Your task to perform on an android device: View the shopping cart on newegg. Add "usb-c to usb-b" to the cart on newegg, then select checkout. Image 0: 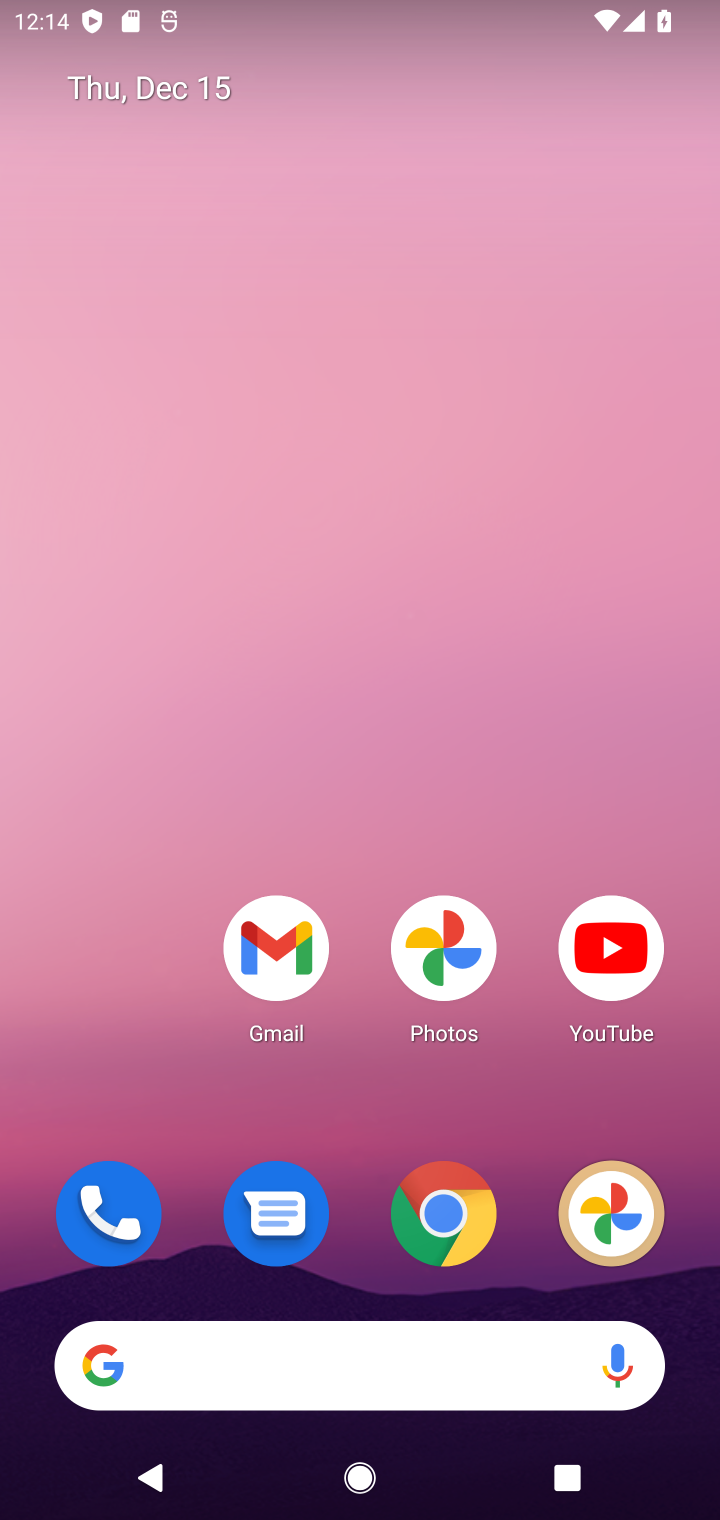
Step 0: click (428, 1242)
Your task to perform on an android device: View the shopping cart on newegg. Add "usb-c to usb-b" to the cart on newegg, then select checkout. Image 1: 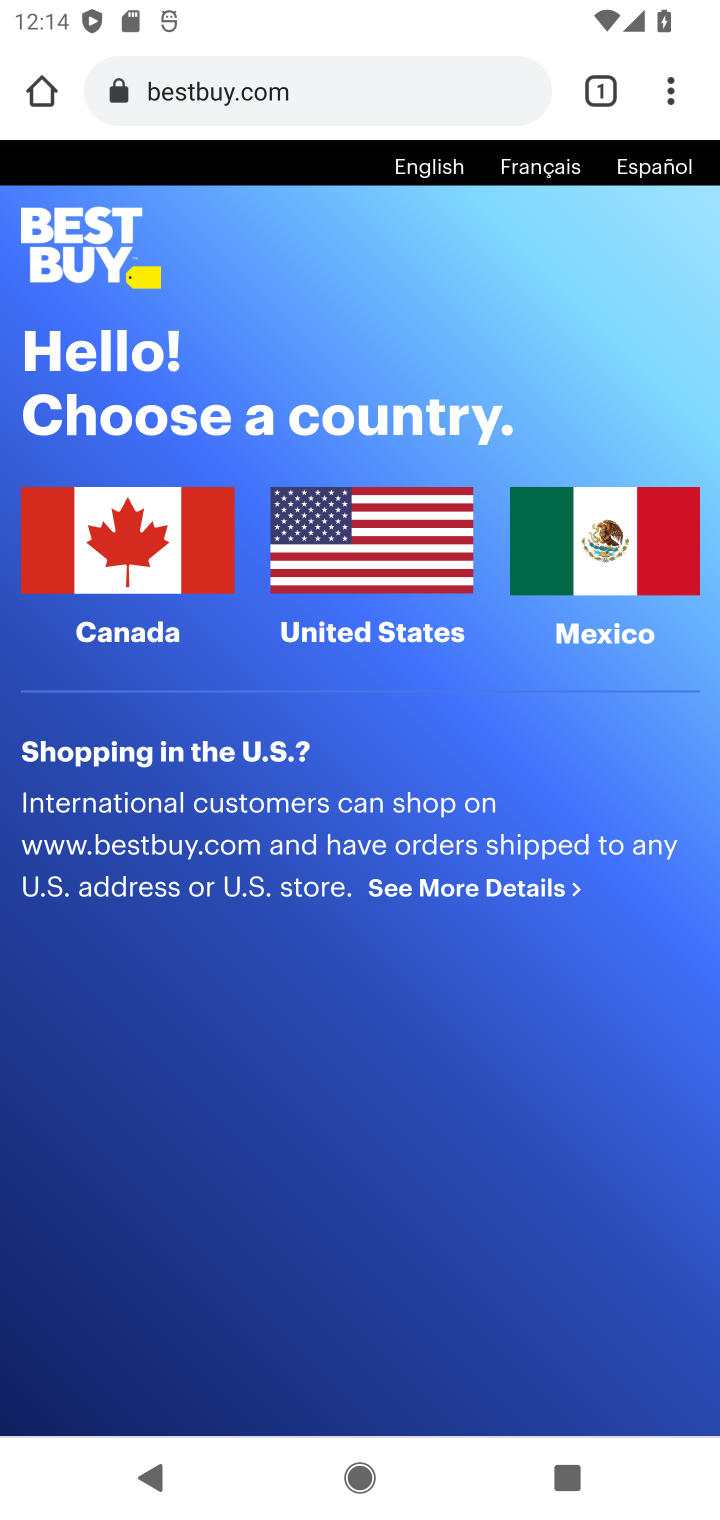
Step 1: click (294, 69)
Your task to perform on an android device: View the shopping cart on newegg. Add "usb-c to usb-b" to the cart on newegg, then select checkout. Image 2: 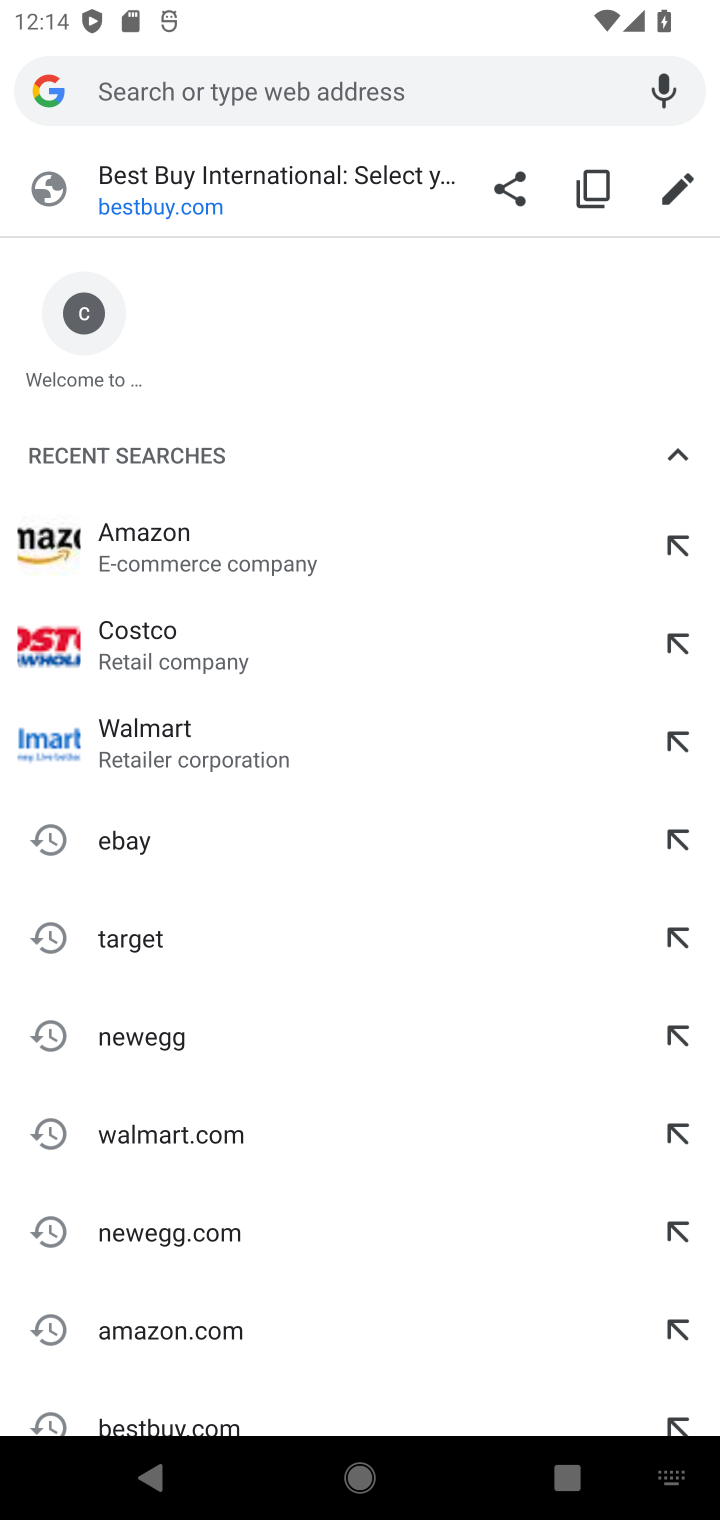
Step 2: click (201, 1225)
Your task to perform on an android device: View the shopping cart on newegg. Add "usb-c to usb-b" to the cart on newegg, then select checkout. Image 3: 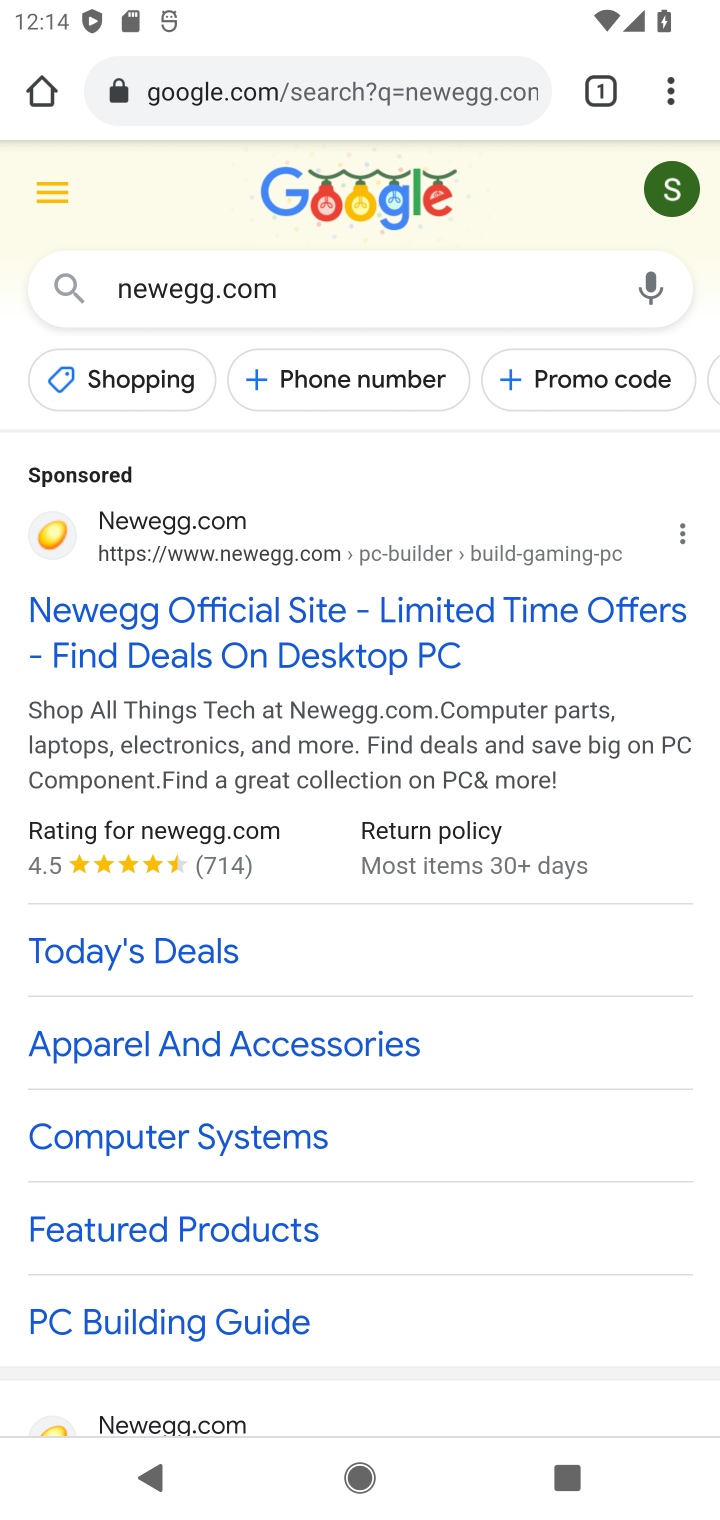
Step 3: click (207, 627)
Your task to perform on an android device: View the shopping cart on newegg. Add "usb-c to usb-b" to the cart on newegg, then select checkout. Image 4: 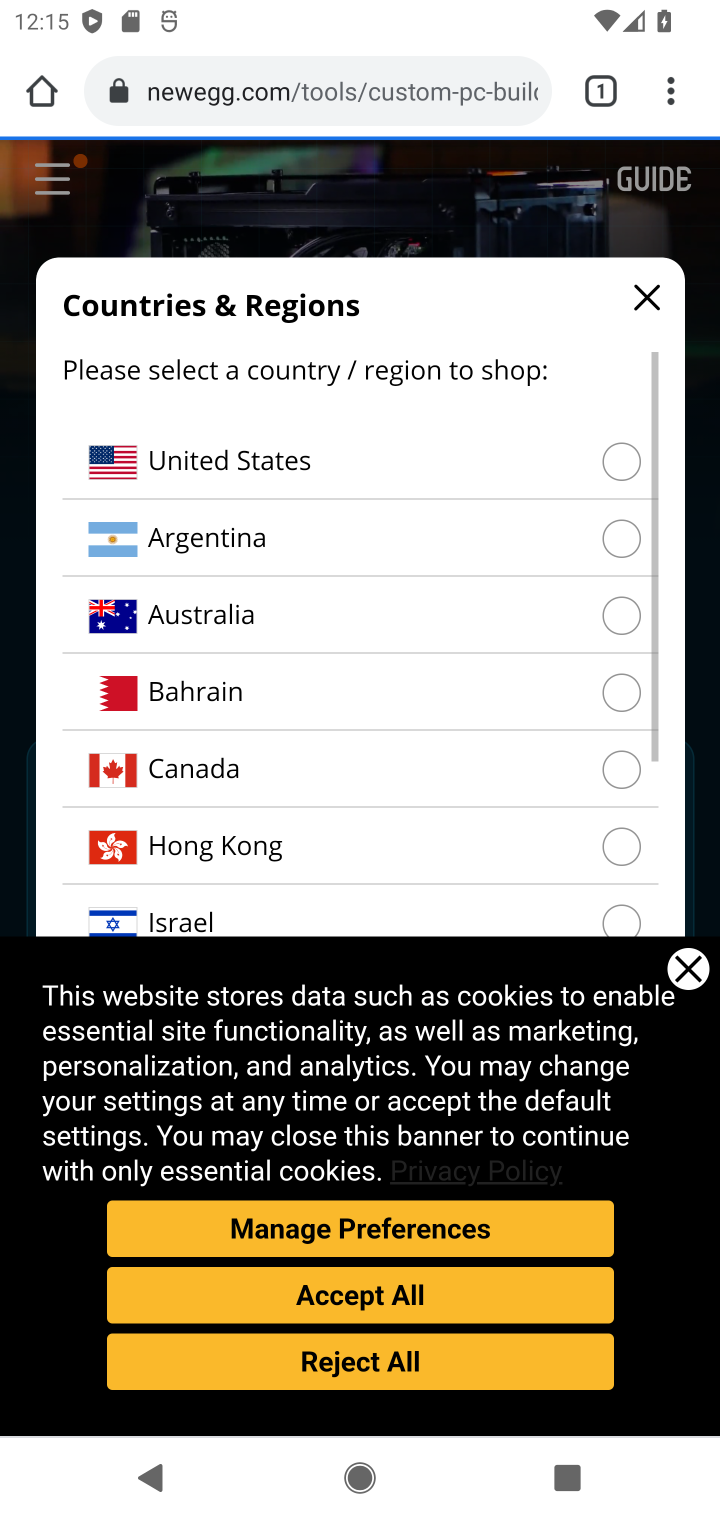
Step 4: click (319, 1323)
Your task to perform on an android device: View the shopping cart on newegg. Add "usb-c to usb-b" to the cart on newegg, then select checkout. Image 5: 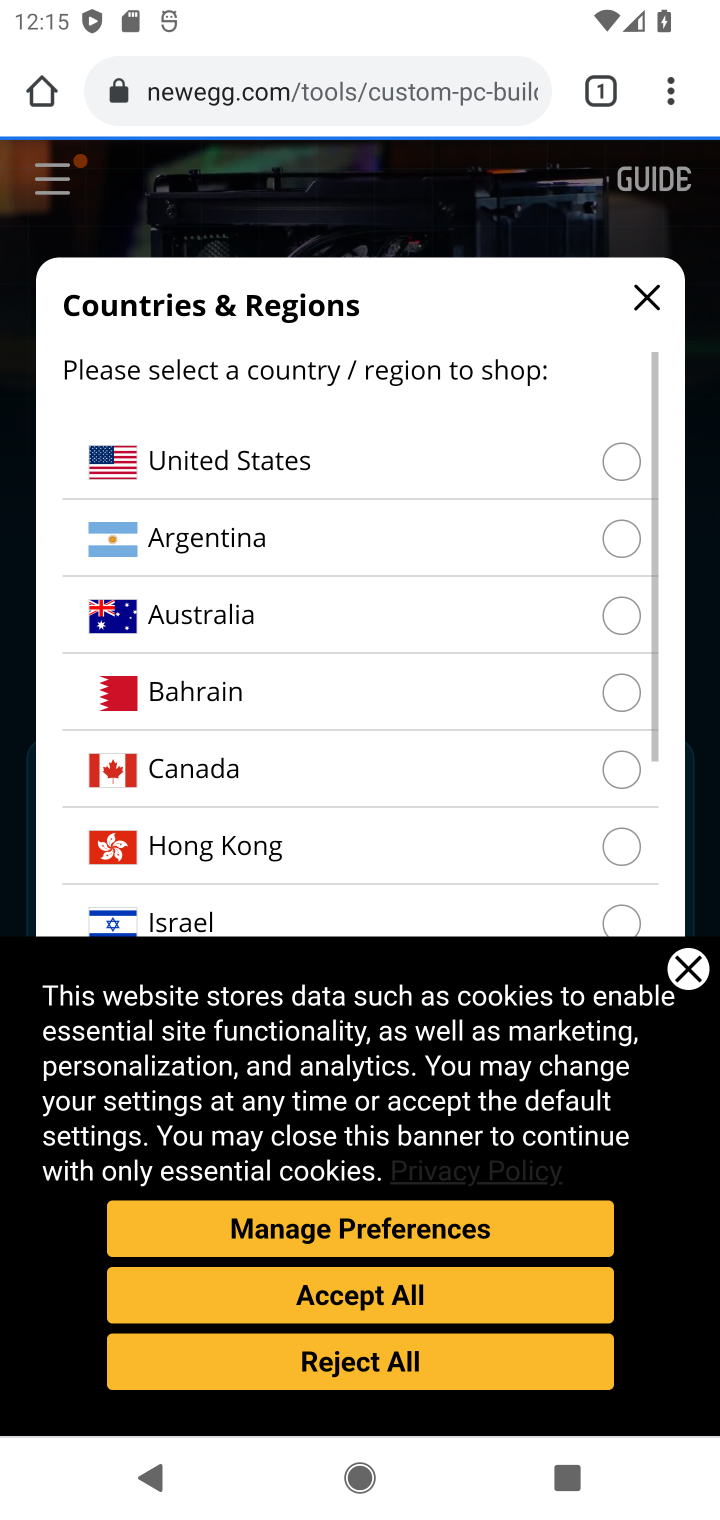
Step 5: click (306, 483)
Your task to perform on an android device: View the shopping cart on newegg. Add "usb-c to usb-b" to the cart on newegg, then select checkout. Image 6: 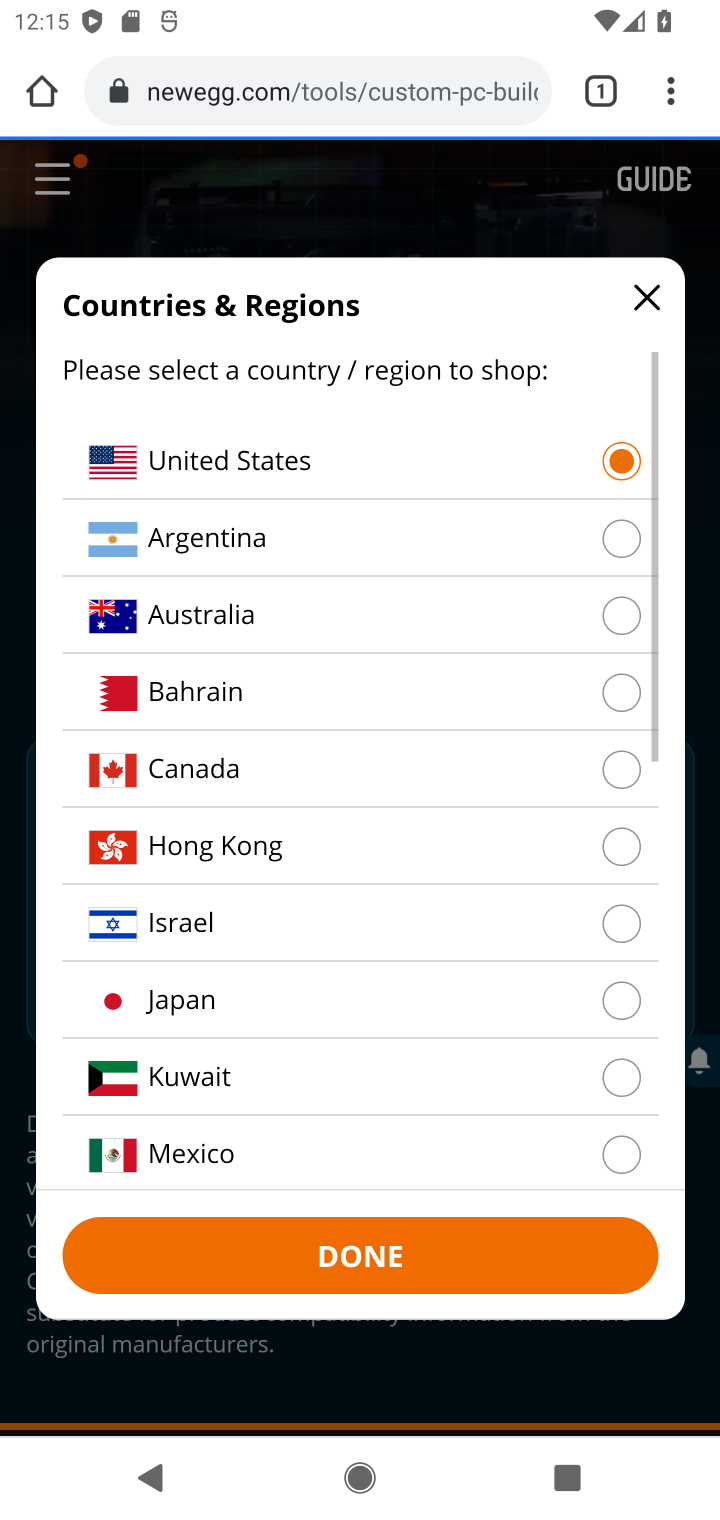
Step 6: click (394, 1222)
Your task to perform on an android device: View the shopping cart on newegg. Add "usb-c to usb-b" to the cart on newegg, then select checkout. Image 7: 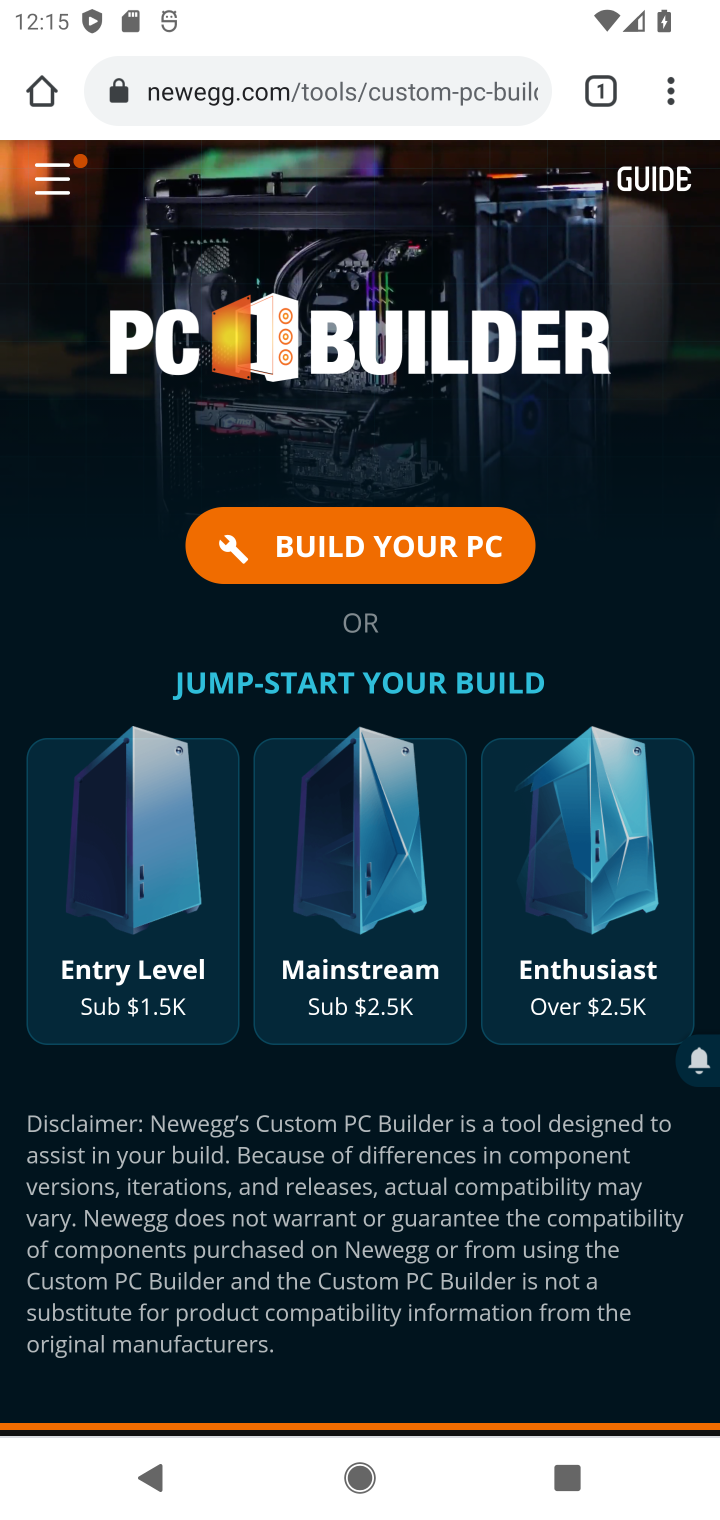
Step 7: task complete